Your task to perform on an android device: Is it going to rain today? Image 0: 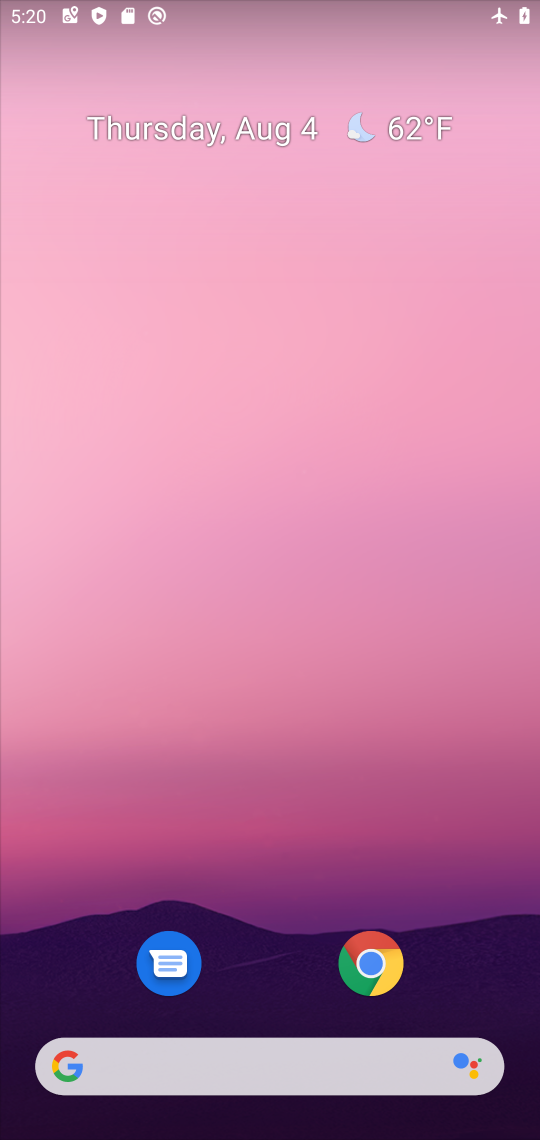
Step 0: click (260, 1046)
Your task to perform on an android device: Is it going to rain today? Image 1: 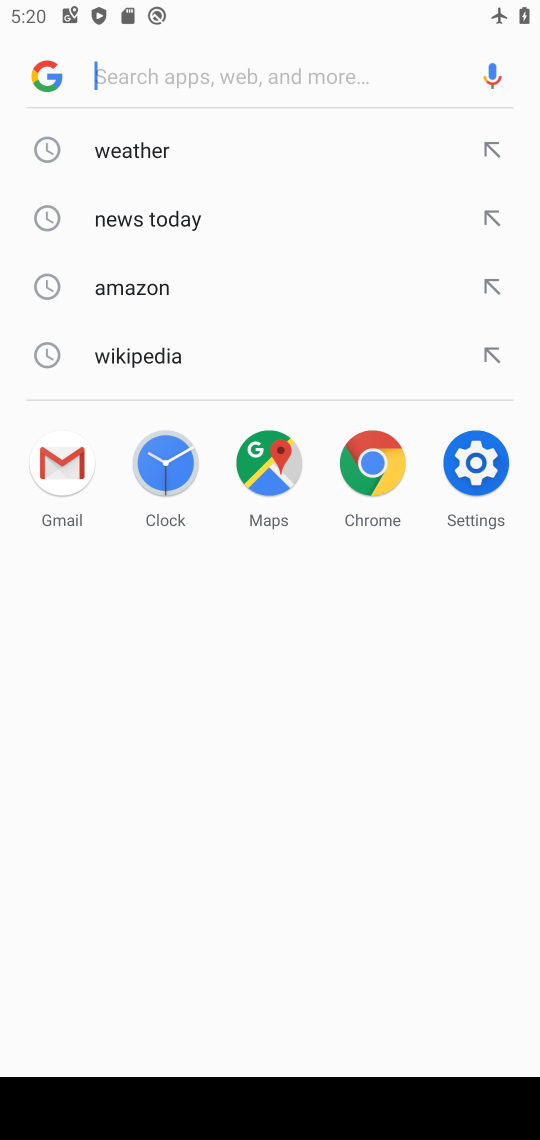
Step 1: click (116, 139)
Your task to perform on an android device: Is it going to rain today? Image 2: 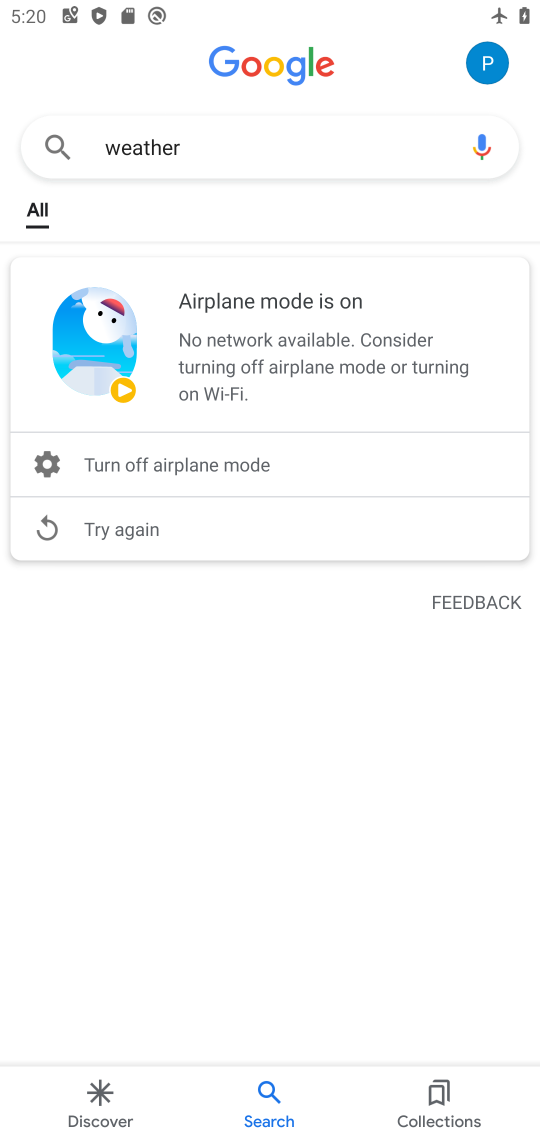
Step 2: task complete